Your task to perform on an android device: Open Chrome and go to settings Image 0: 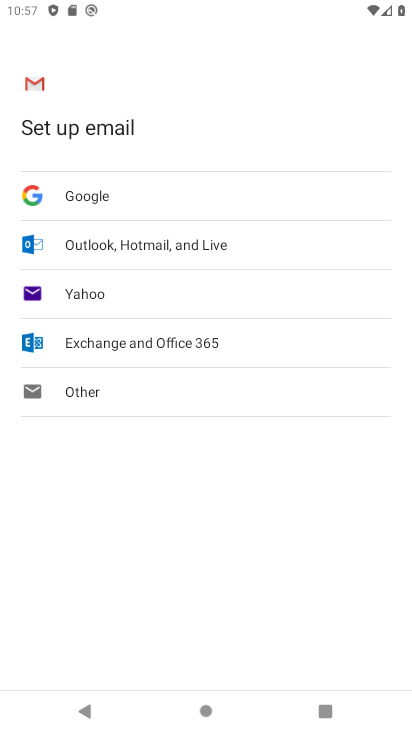
Step 0: press home button
Your task to perform on an android device: Open Chrome and go to settings Image 1: 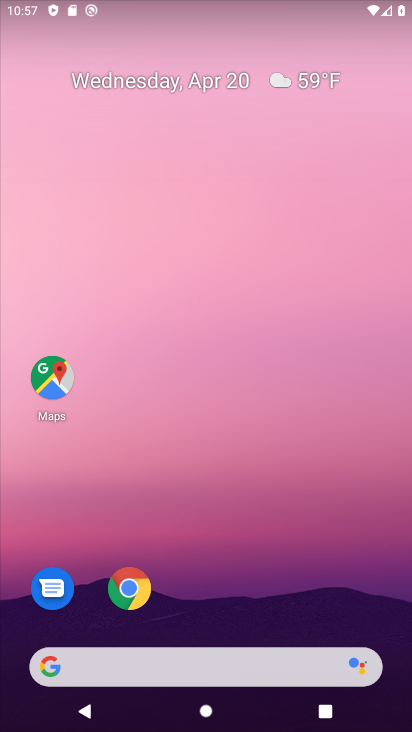
Step 1: click (137, 590)
Your task to perform on an android device: Open Chrome and go to settings Image 2: 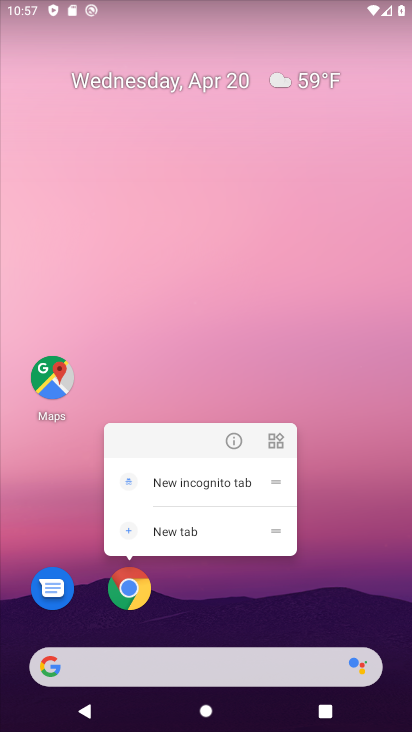
Step 2: click (137, 590)
Your task to perform on an android device: Open Chrome and go to settings Image 3: 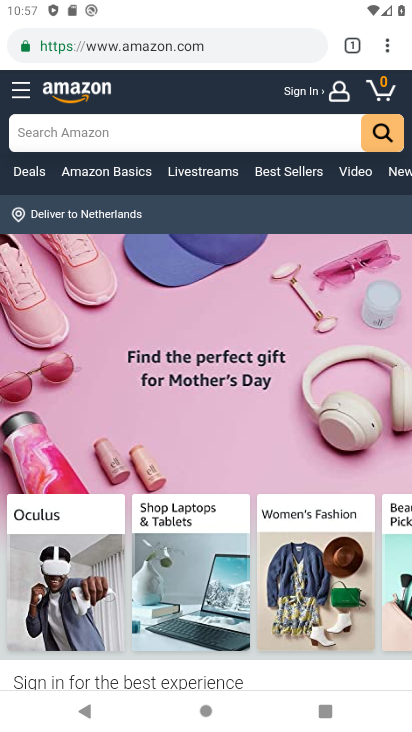
Step 3: click (389, 54)
Your task to perform on an android device: Open Chrome and go to settings Image 4: 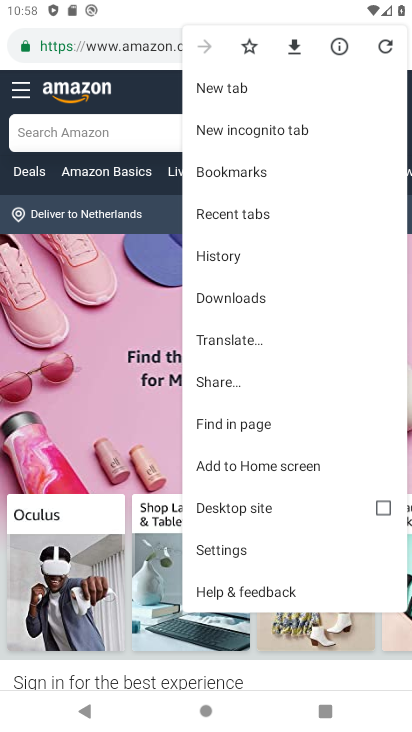
Step 4: click (230, 550)
Your task to perform on an android device: Open Chrome and go to settings Image 5: 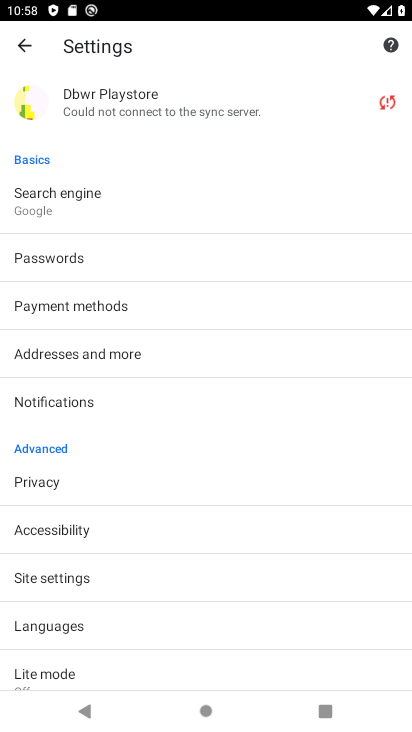
Step 5: task complete